Your task to perform on an android device: turn off notifications settings in the gmail app Image 0: 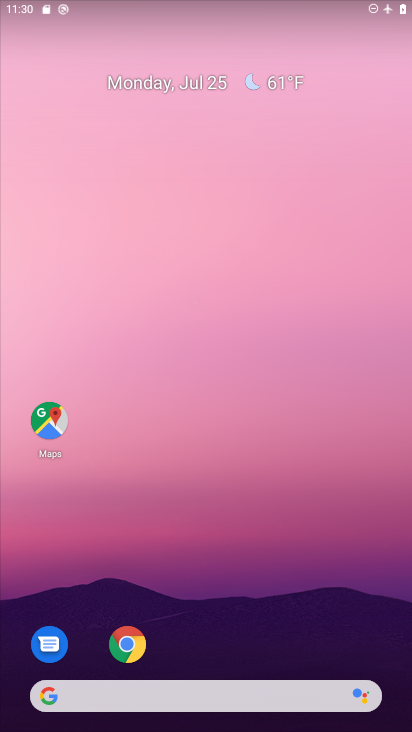
Step 0: drag from (206, 644) to (184, 259)
Your task to perform on an android device: turn off notifications settings in the gmail app Image 1: 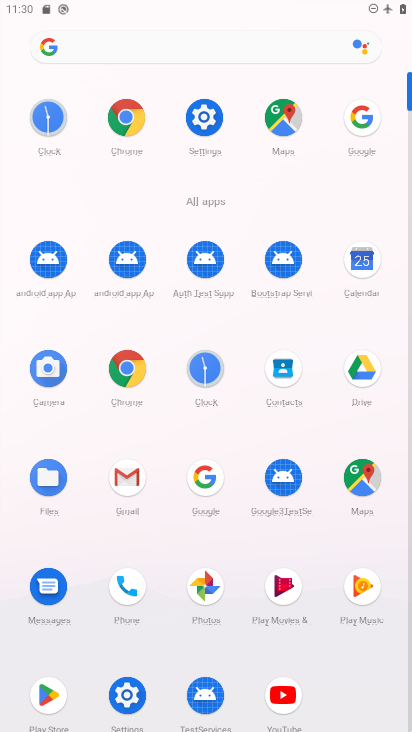
Step 1: click (123, 468)
Your task to perform on an android device: turn off notifications settings in the gmail app Image 2: 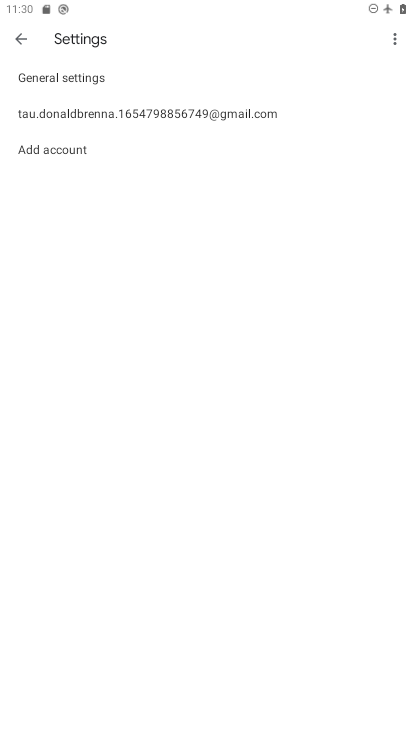
Step 2: click (68, 70)
Your task to perform on an android device: turn off notifications settings in the gmail app Image 3: 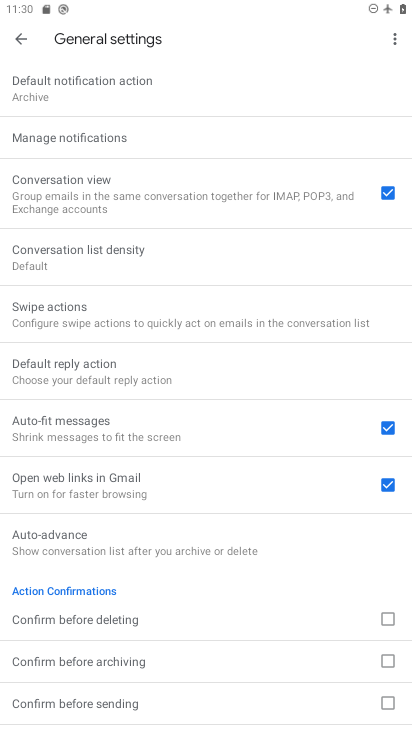
Step 3: click (14, 35)
Your task to perform on an android device: turn off notifications settings in the gmail app Image 4: 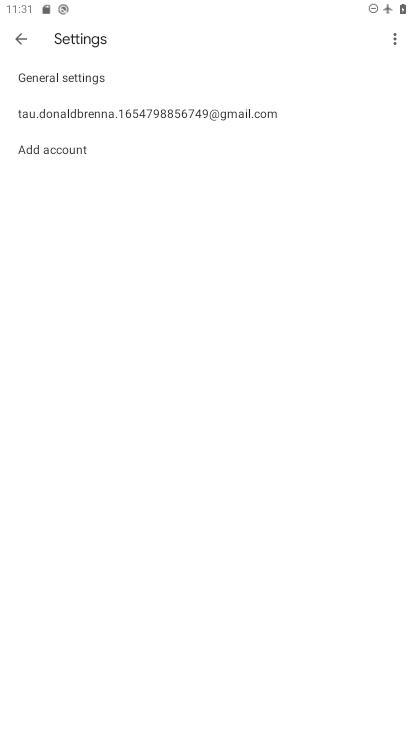
Step 4: click (80, 121)
Your task to perform on an android device: turn off notifications settings in the gmail app Image 5: 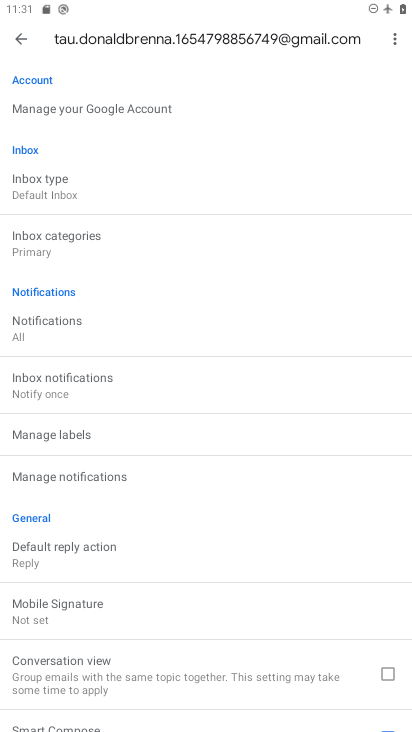
Step 5: click (86, 322)
Your task to perform on an android device: turn off notifications settings in the gmail app Image 6: 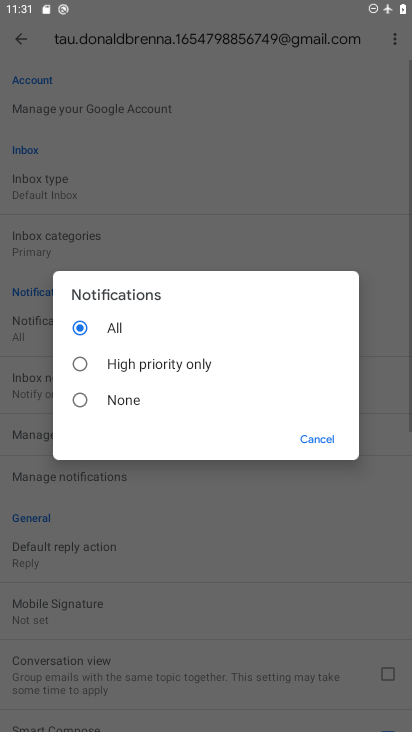
Step 6: click (86, 405)
Your task to perform on an android device: turn off notifications settings in the gmail app Image 7: 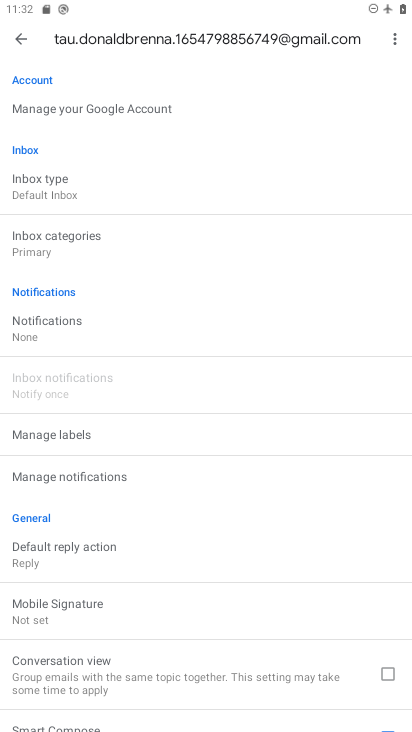
Step 7: task complete